Your task to perform on an android device: turn off sleep mode Image 0: 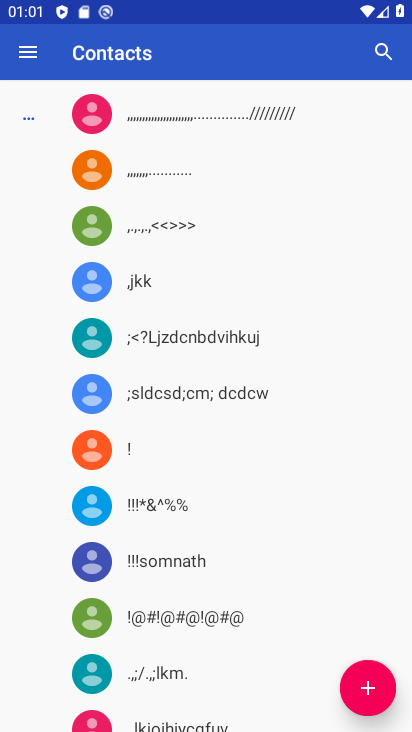
Step 0: press home button
Your task to perform on an android device: turn off sleep mode Image 1: 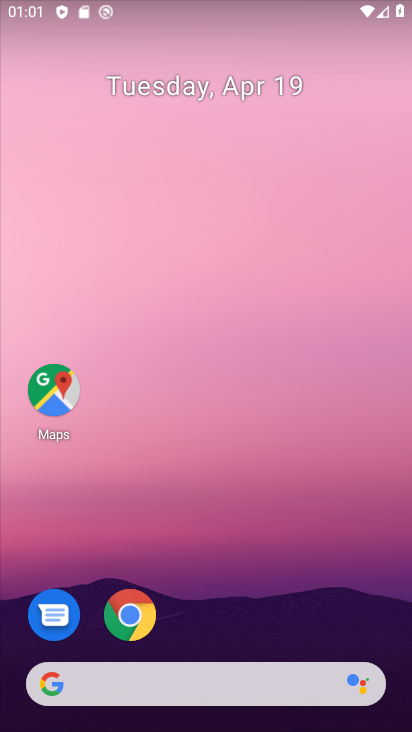
Step 1: drag from (219, 520) to (204, 236)
Your task to perform on an android device: turn off sleep mode Image 2: 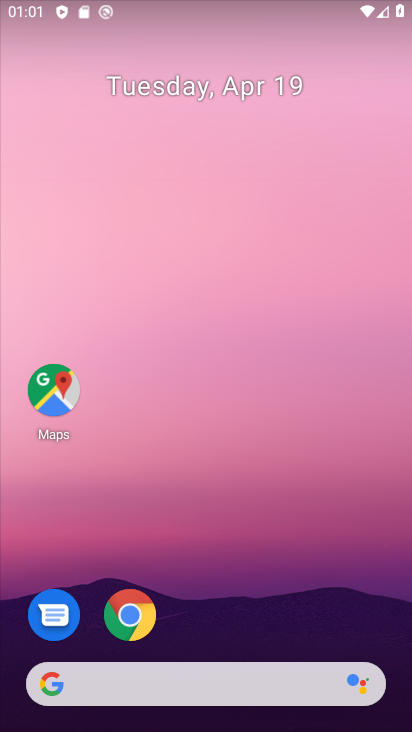
Step 2: drag from (257, 585) to (243, 43)
Your task to perform on an android device: turn off sleep mode Image 3: 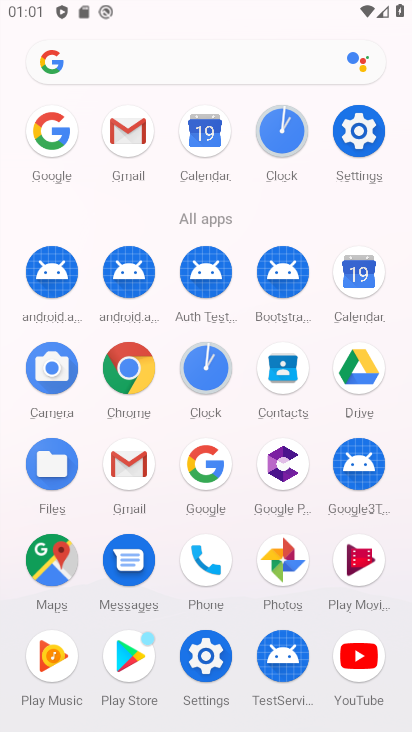
Step 3: click (354, 115)
Your task to perform on an android device: turn off sleep mode Image 4: 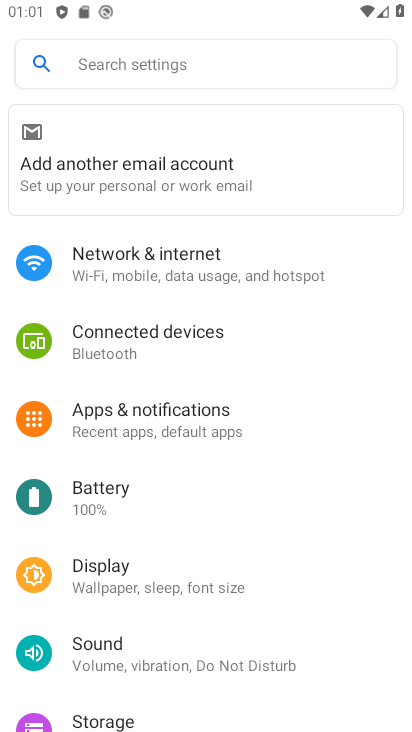
Step 4: drag from (133, 635) to (151, 284)
Your task to perform on an android device: turn off sleep mode Image 5: 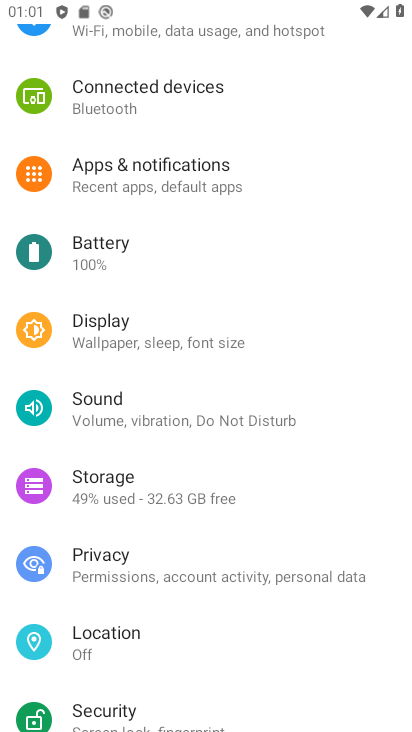
Step 5: drag from (217, 691) to (205, 248)
Your task to perform on an android device: turn off sleep mode Image 6: 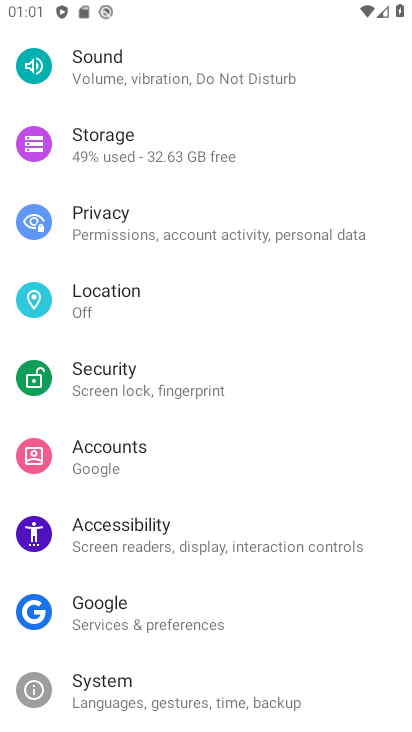
Step 6: drag from (197, 196) to (204, 558)
Your task to perform on an android device: turn off sleep mode Image 7: 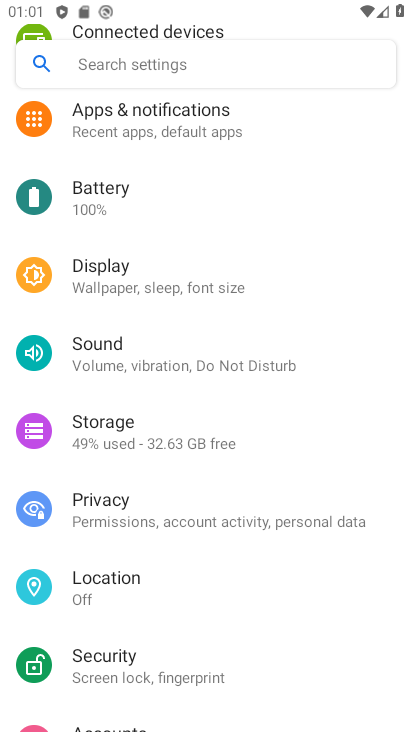
Step 7: click (161, 290)
Your task to perform on an android device: turn off sleep mode Image 8: 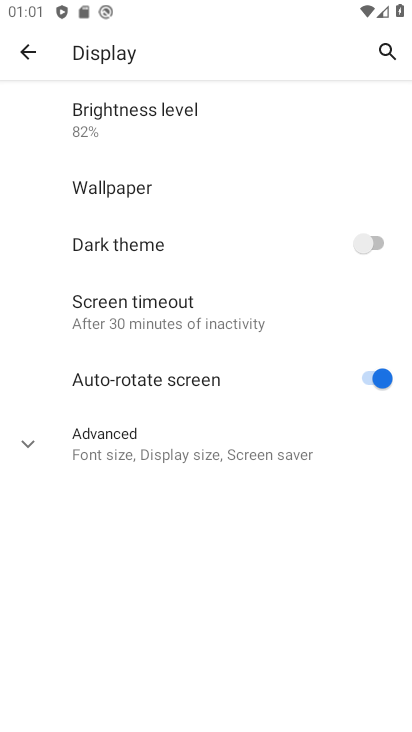
Step 8: click (28, 466)
Your task to perform on an android device: turn off sleep mode Image 9: 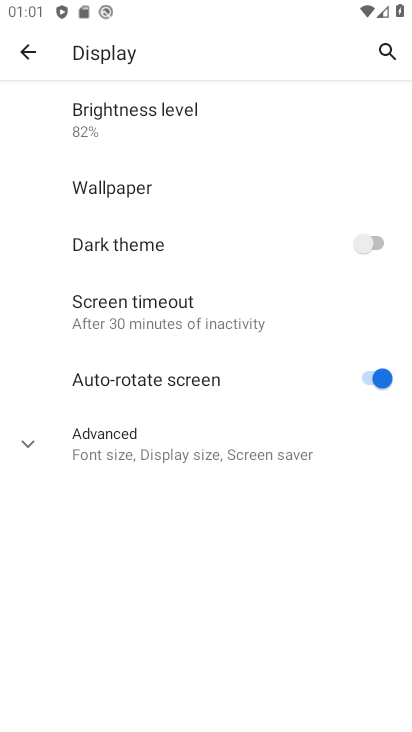
Step 9: click (26, 449)
Your task to perform on an android device: turn off sleep mode Image 10: 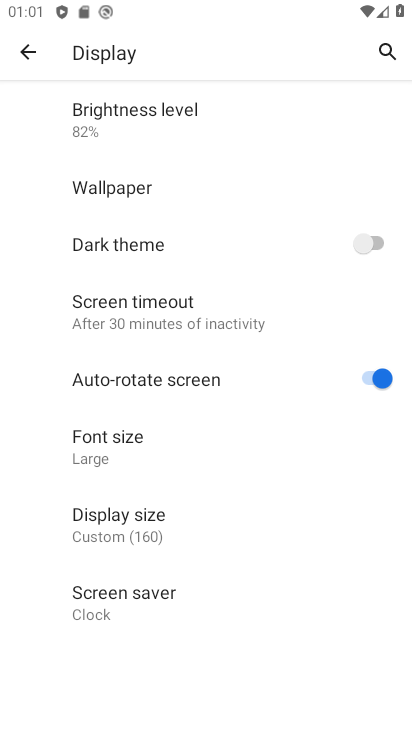
Step 10: task complete